Your task to perform on an android device: turn on javascript in the chrome app Image 0: 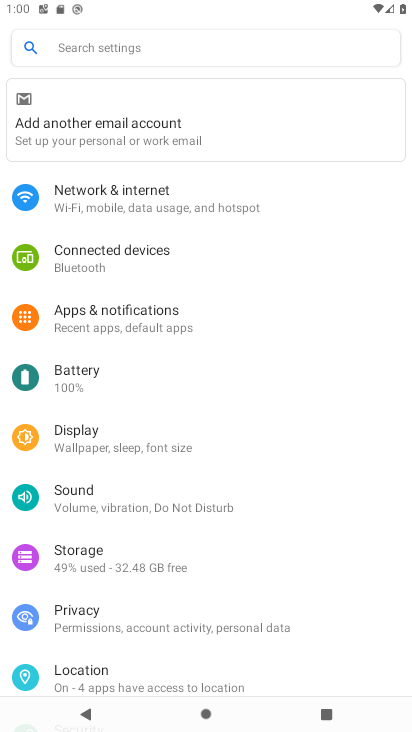
Step 0: press home button
Your task to perform on an android device: turn on javascript in the chrome app Image 1: 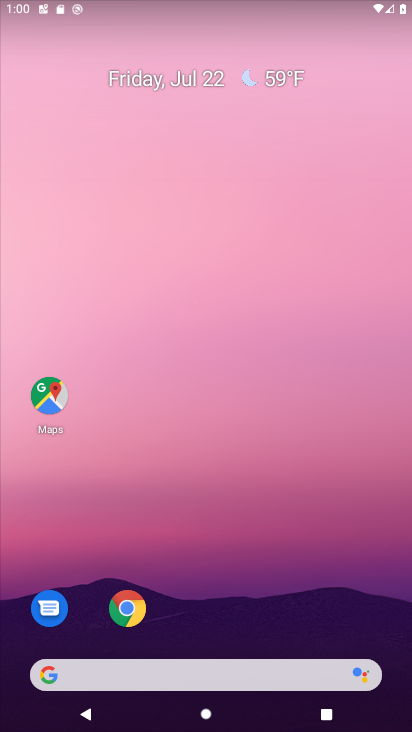
Step 1: drag from (224, 625) to (242, 0)
Your task to perform on an android device: turn on javascript in the chrome app Image 2: 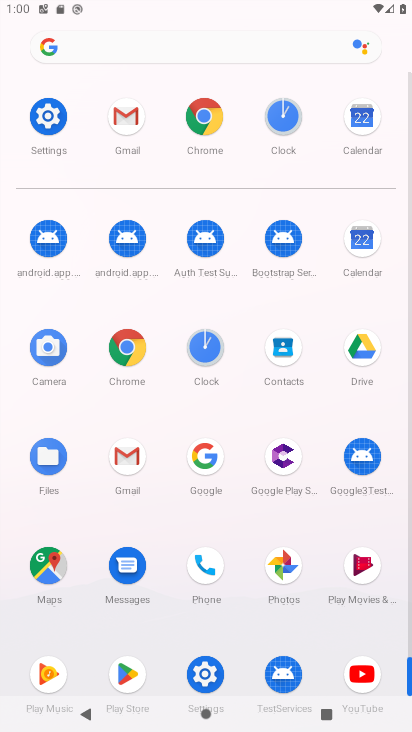
Step 2: click (126, 354)
Your task to perform on an android device: turn on javascript in the chrome app Image 3: 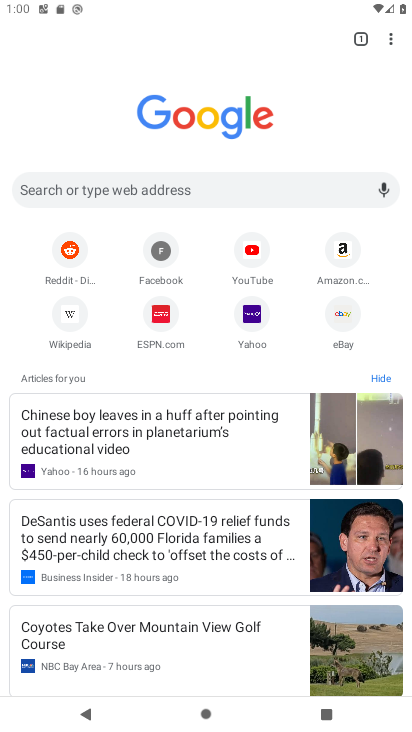
Step 3: click (392, 37)
Your task to perform on an android device: turn on javascript in the chrome app Image 4: 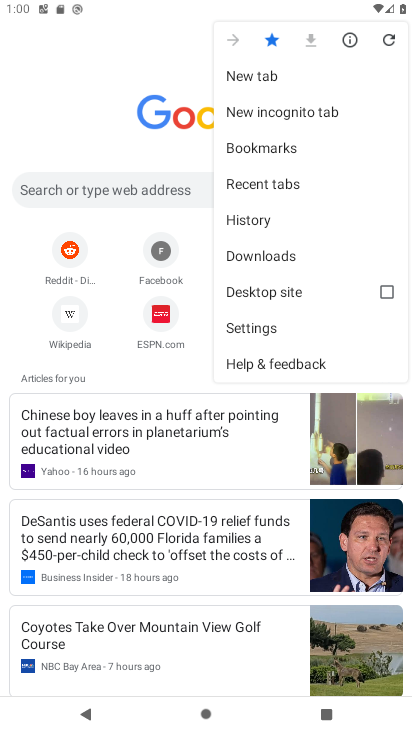
Step 4: click (263, 335)
Your task to perform on an android device: turn on javascript in the chrome app Image 5: 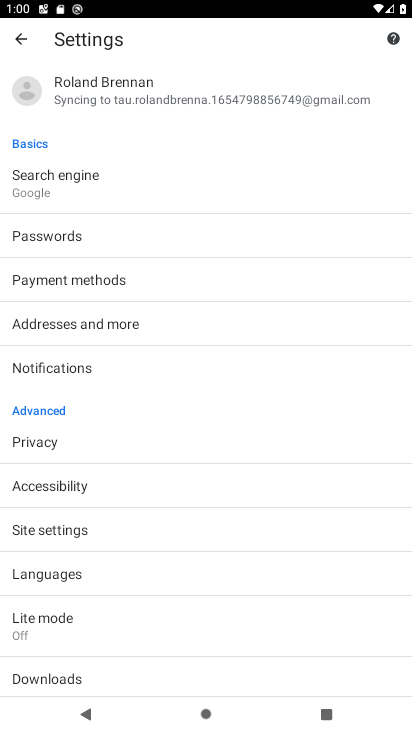
Step 5: click (55, 535)
Your task to perform on an android device: turn on javascript in the chrome app Image 6: 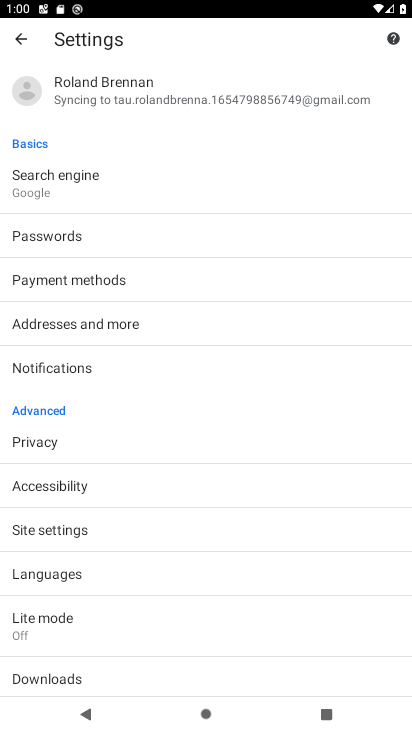
Step 6: click (59, 524)
Your task to perform on an android device: turn on javascript in the chrome app Image 7: 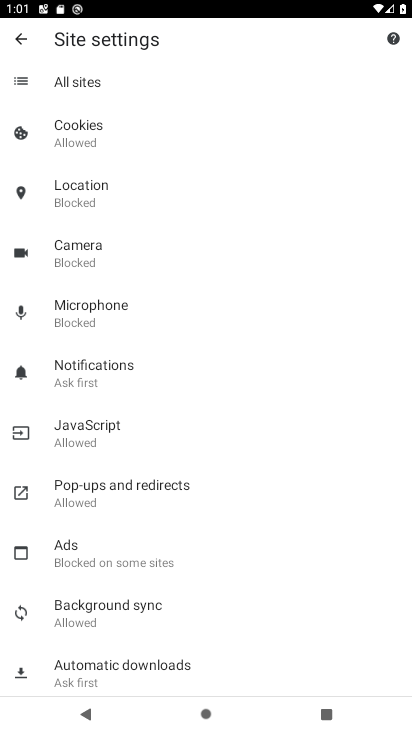
Step 7: click (93, 442)
Your task to perform on an android device: turn on javascript in the chrome app Image 8: 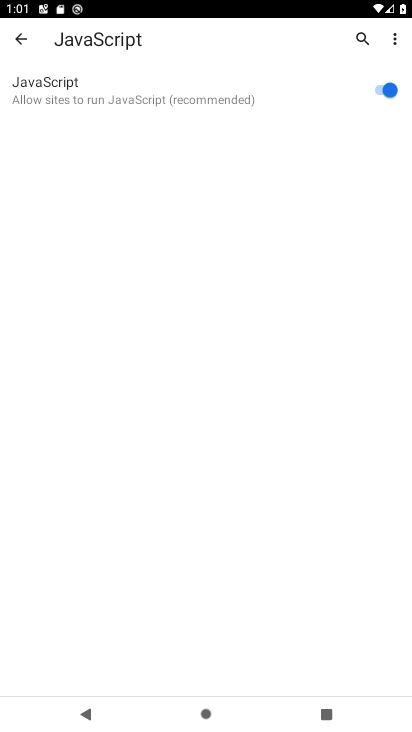
Step 8: task complete